Your task to perform on an android device: Open Yahoo.com Image 0: 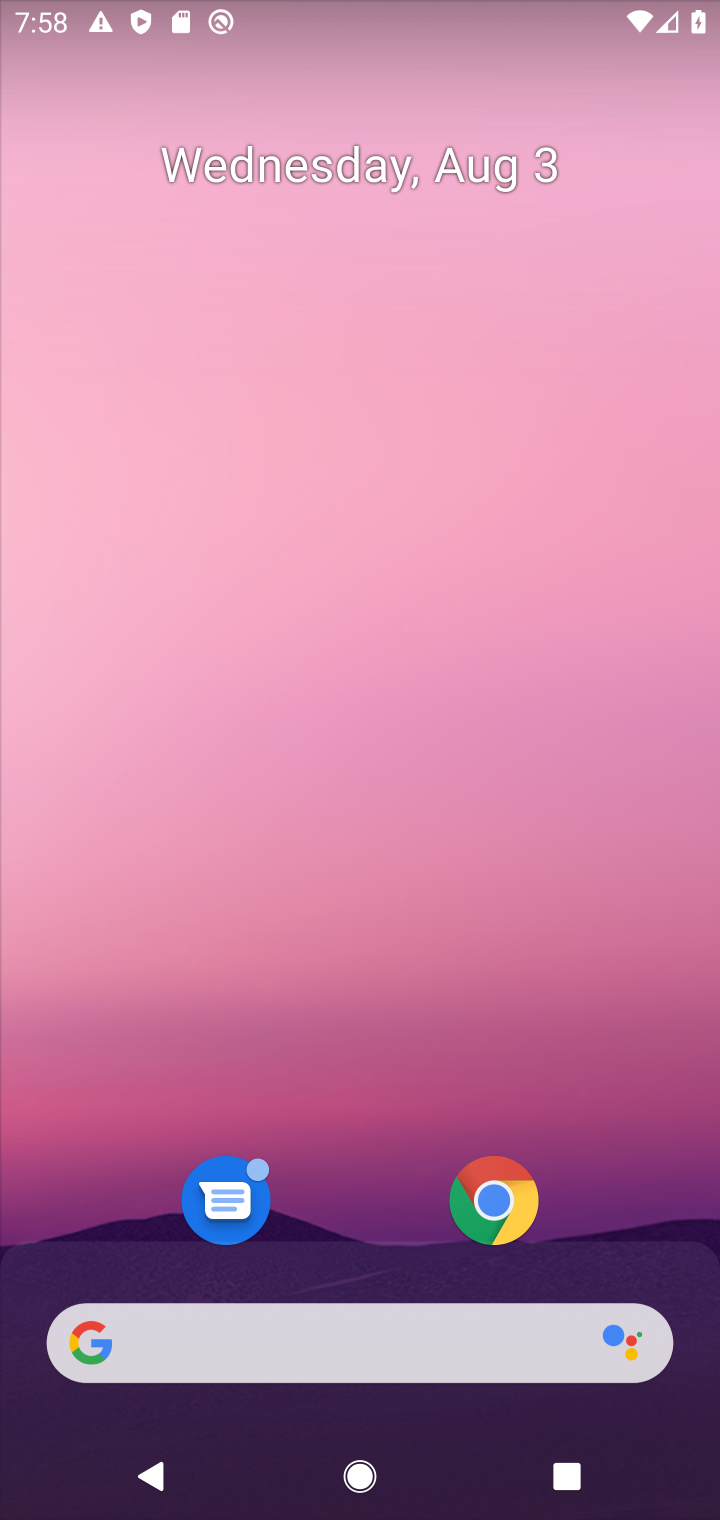
Step 0: click (507, 1175)
Your task to perform on an android device: Open Yahoo.com Image 1: 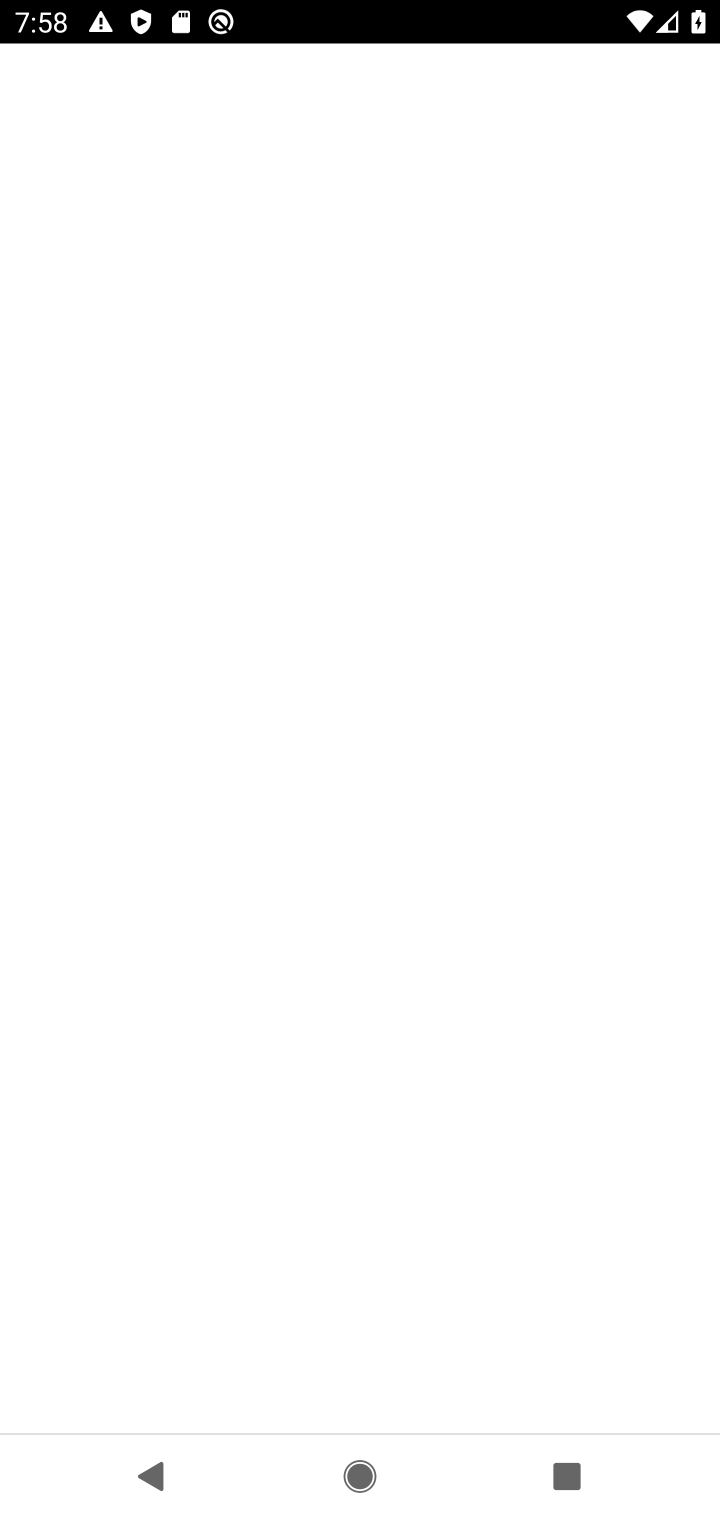
Step 1: click (466, 1222)
Your task to perform on an android device: Open Yahoo.com Image 2: 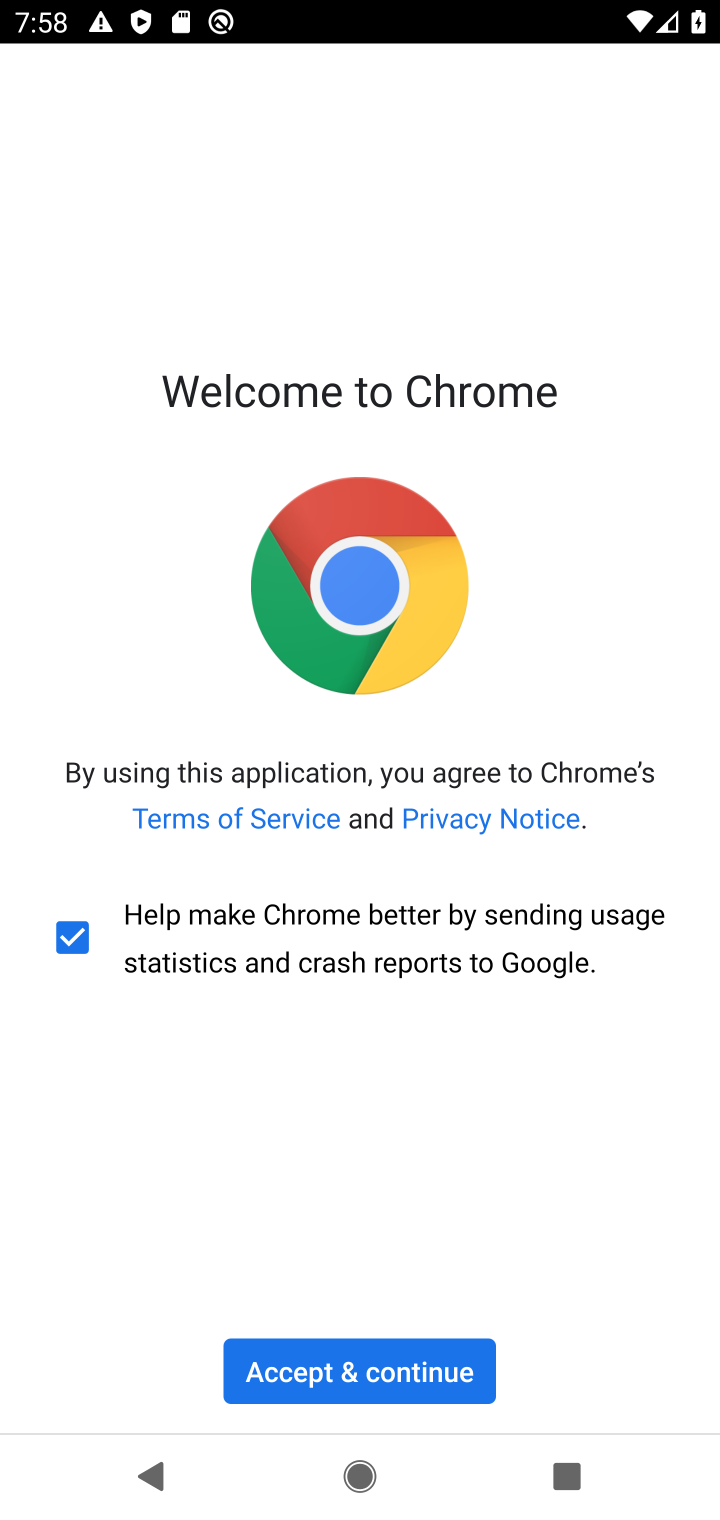
Step 2: click (393, 1338)
Your task to perform on an android device: Open Yahoo.com Image 3: 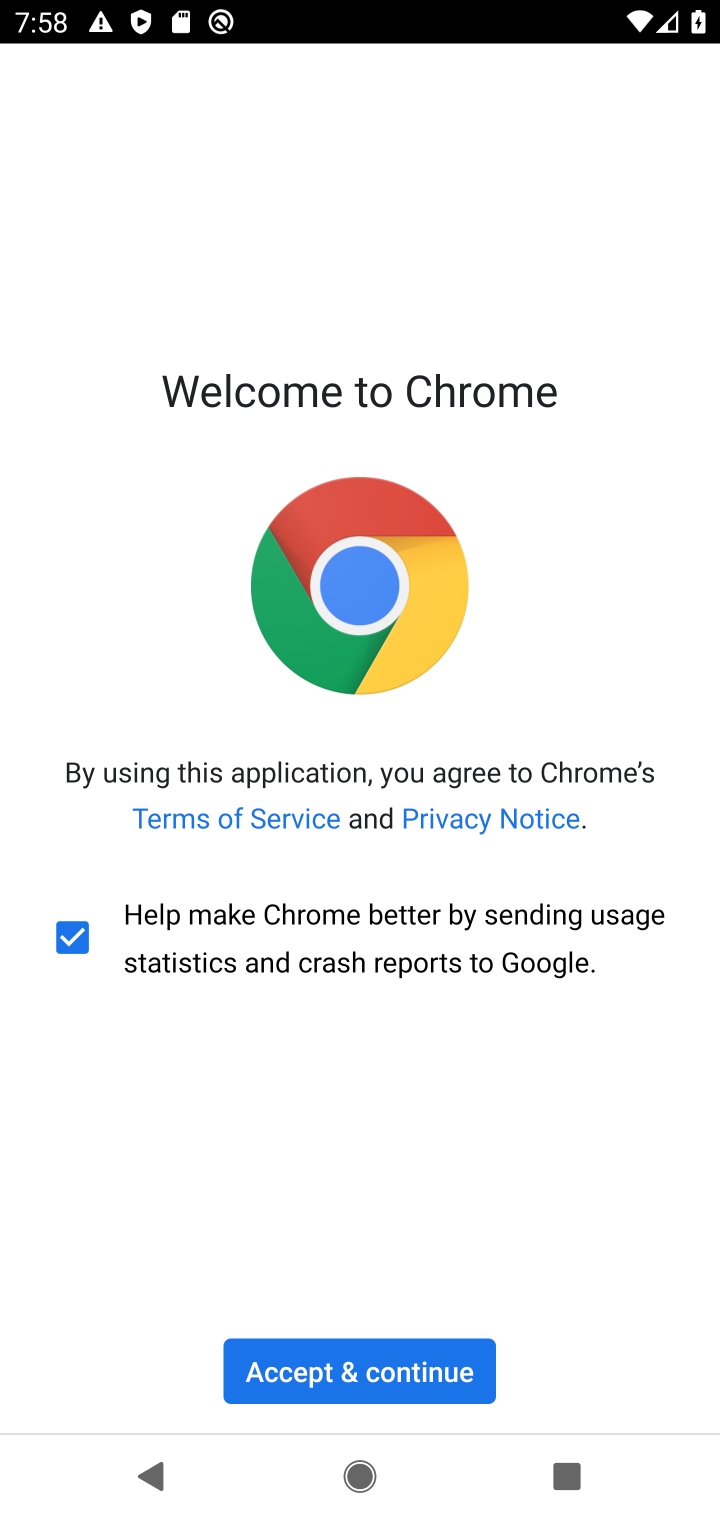
Step 3: click (304, 1371)
Your task to perform on an android device: Open Yahoo.com Image 4: 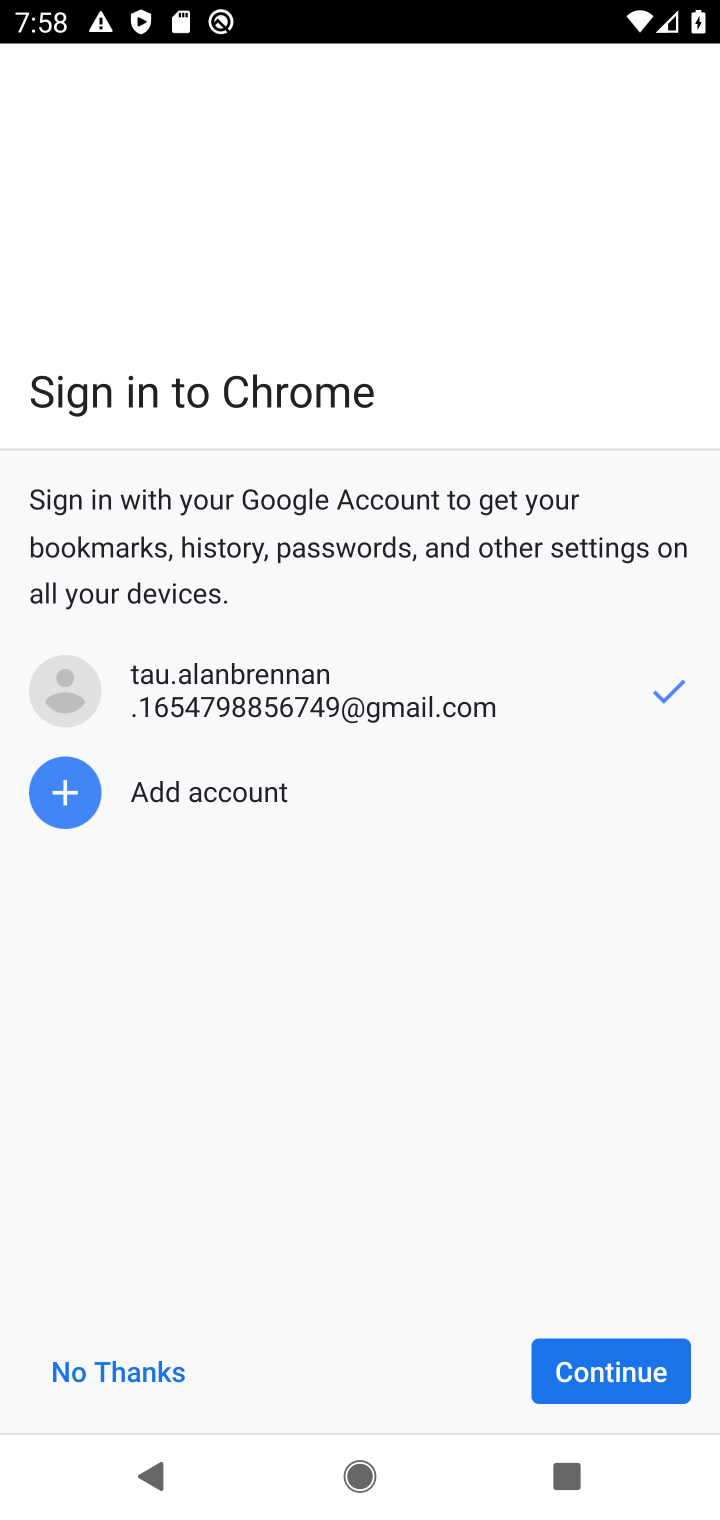
Step 4: click (555, 1350)
Your task to perform on an android device: Open Yahoo.com Image 5: 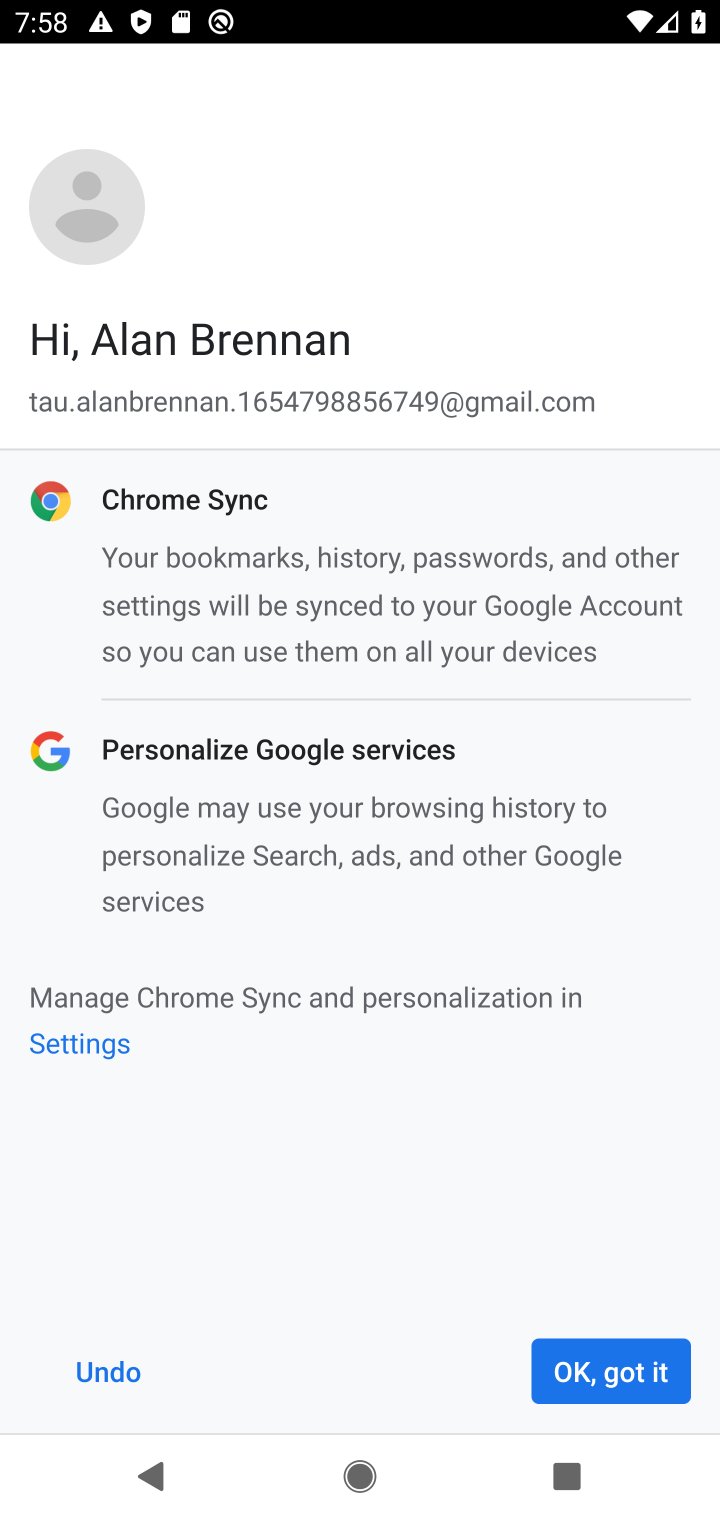
Step 5: click (532, 1338)
Your task to perform on an android device: Open Yahoo.com Image 6: 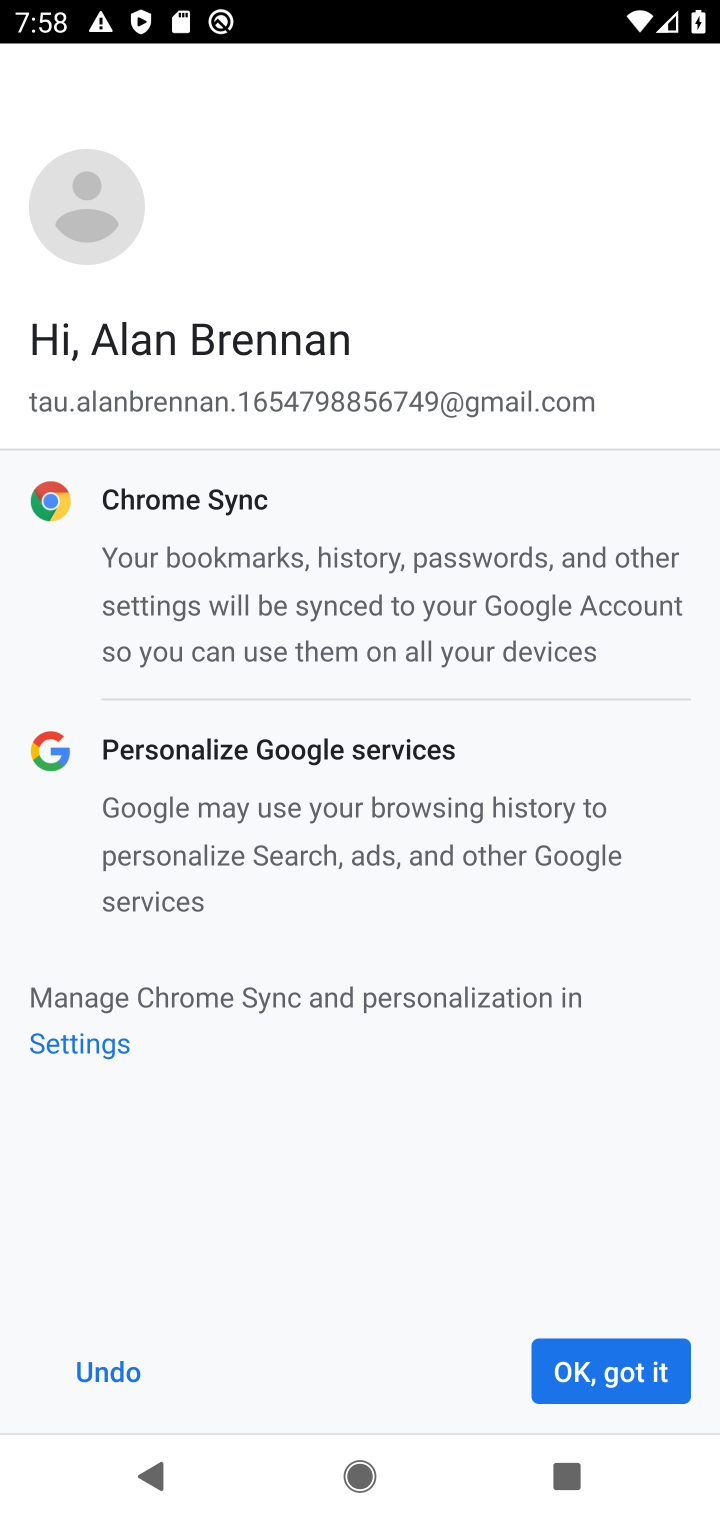
Step 6: click (556, 1371)
Your task to perform on an android device: Open Yahoo.com Image 7: 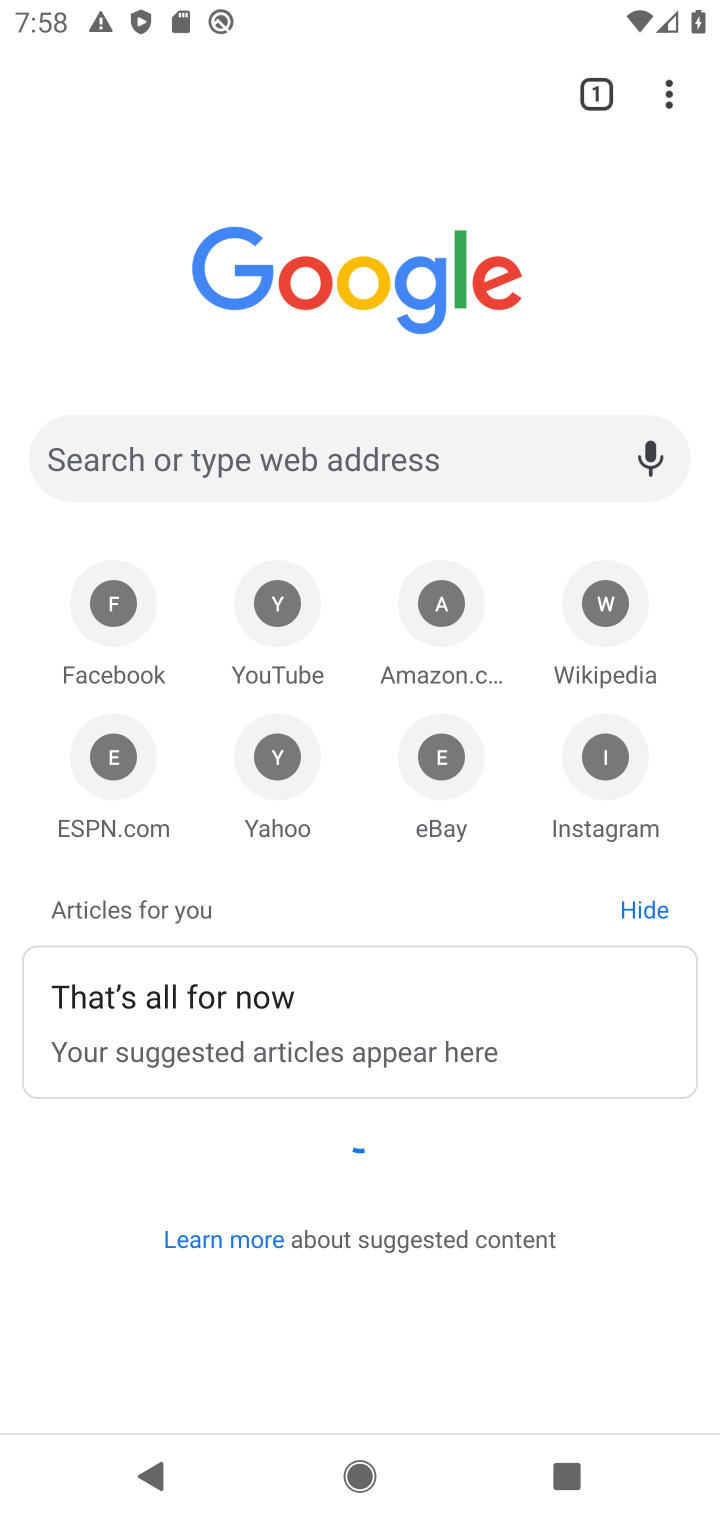
Step 7: click (283, 788)
Your task to perform on an android device: Open Yahoo.com Image 8: 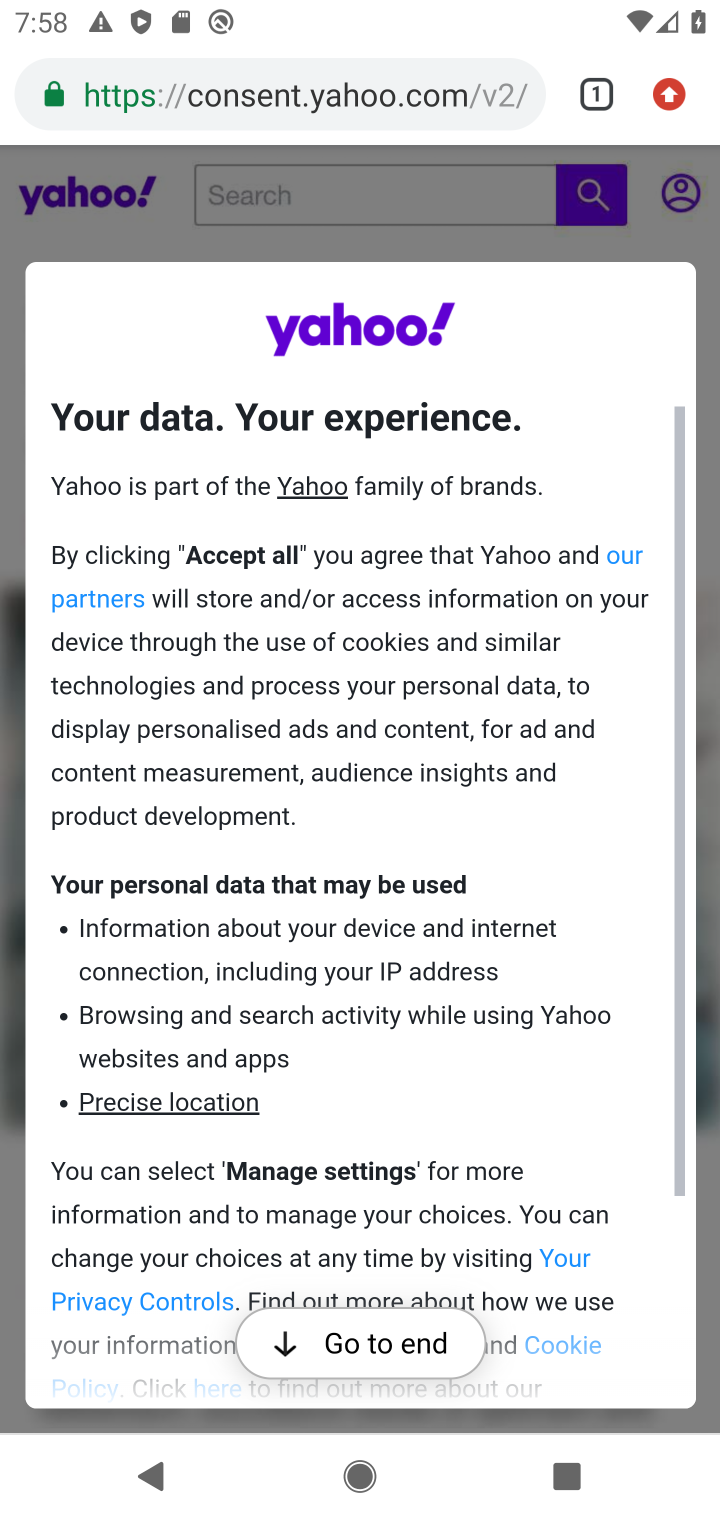
Step 8: click (360, 1358)
Your task to perform on an android device: Open Yahoo.com Image 9: 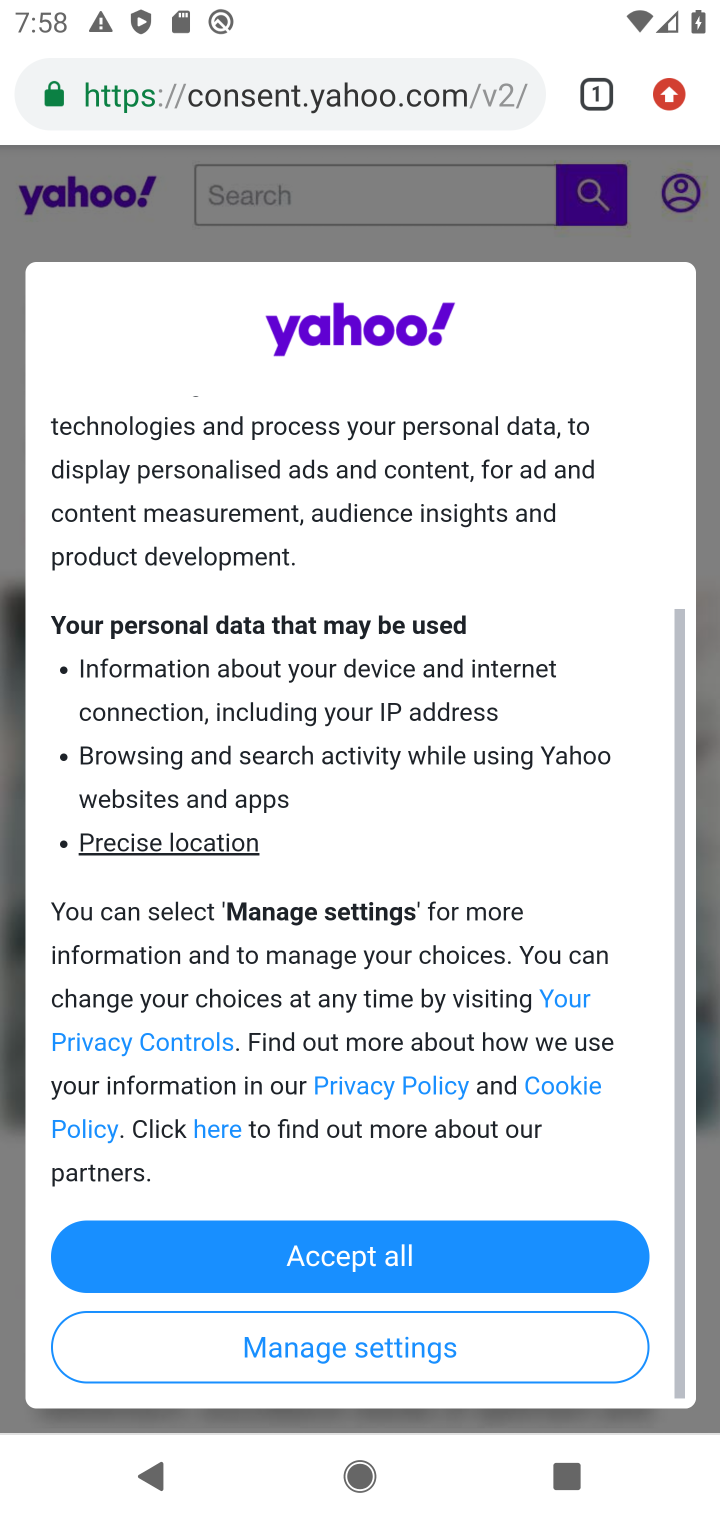
Step 9: click (372, 1260)
Your task to perform on an android device: Open Yahoo.com Image 10: 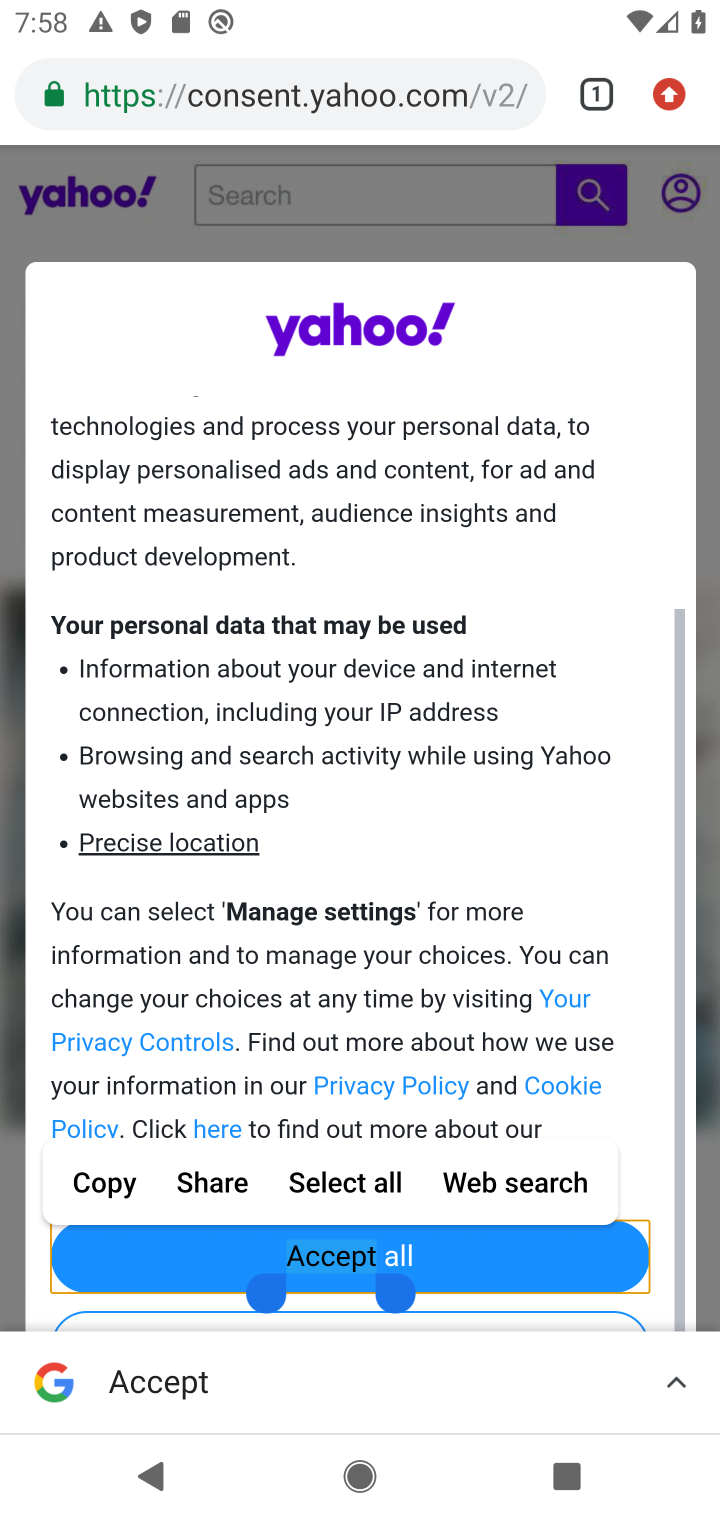
Step 10: click (594, 1273)
Your task to perform on an android device: Open Yahoo.com Image 11: 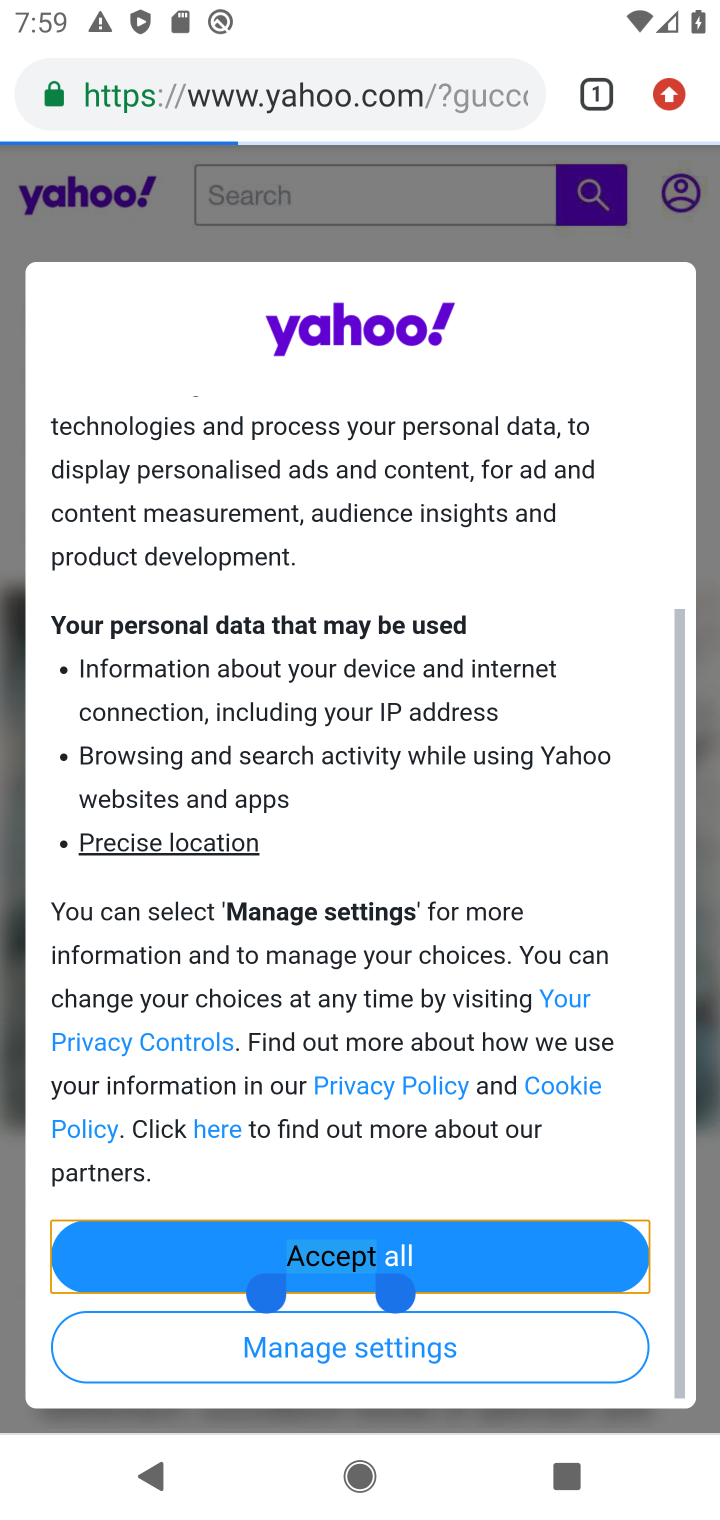
Step 11: click (573, 1270)
Your task to perform on an android device: Open Yahoo.com Image 12: 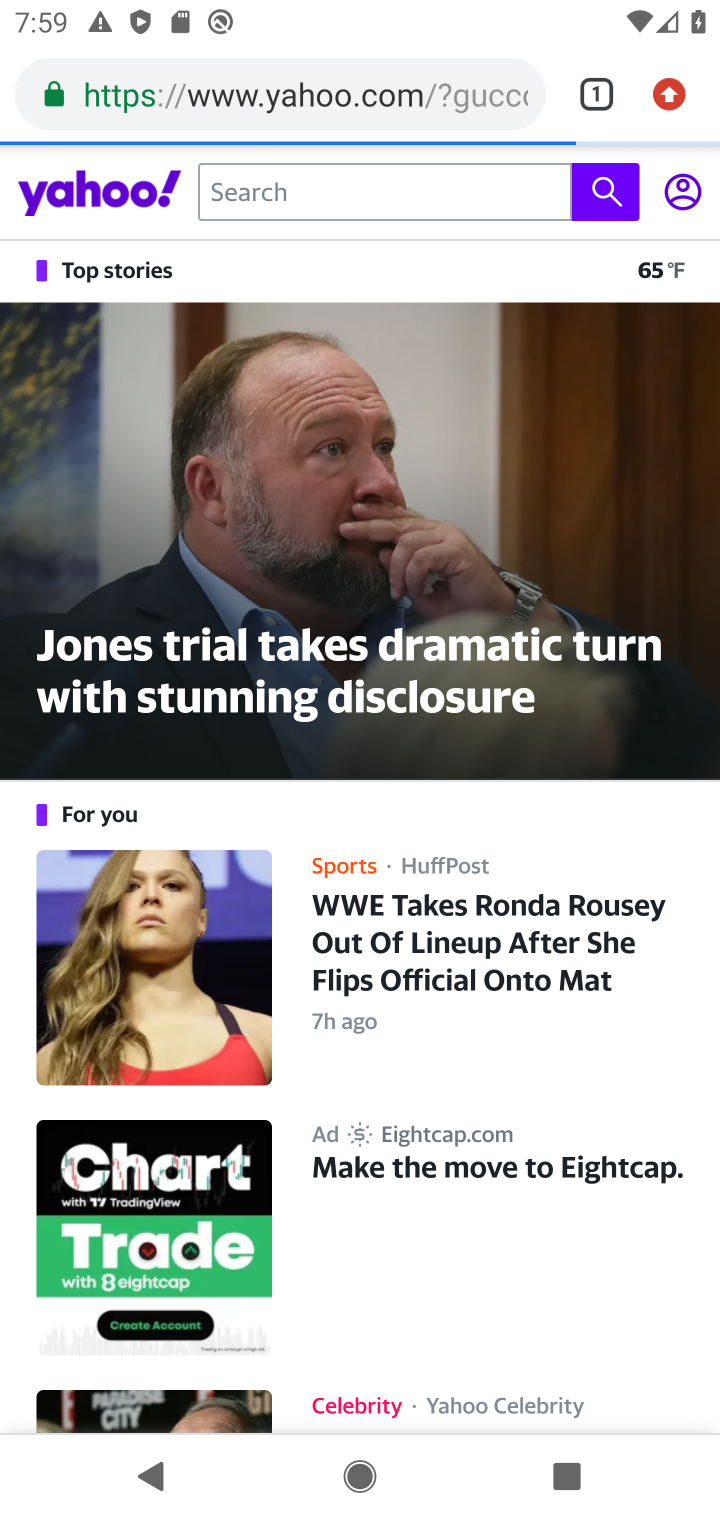
Step 12: task complete